Your task to perform on an android device: Clear all items from cart on newegg.com. Add "usb-a" to the cart on newegg.com Image 0: 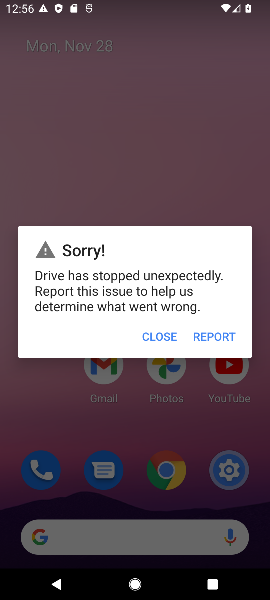
Step 0: click (165, 343)
Your task to perform on an android device: Clear all items from cart on newegg.com. Add "usb-a" to the cart on newegg.com Image 1: 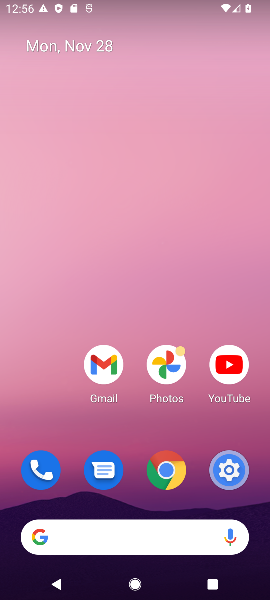
Step 1: click (127, 529)
Your task to perform on an android device: Clear all items from cart on newegg.com. Add "usb-a" to the cart on newegg.com Image 2: 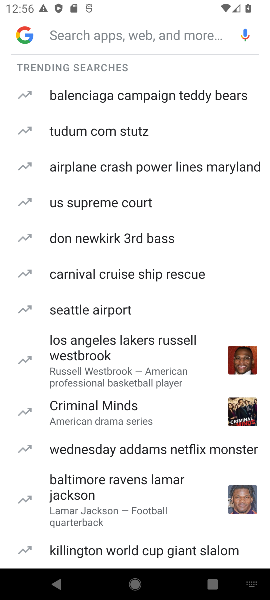
Step 2: type "newegg"
Your task to perform on an android device: Clear all items from cart on newegg.com. Add "usb-a" to the cart on newegg.com Image 3: 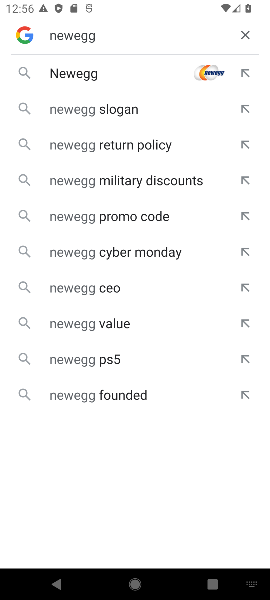
Step 3: click (150, 73)
Your task to perform on an android device: Clear all items from cart on newegg.com. Add "usb-a" to the cart on newegg.com Image 4: 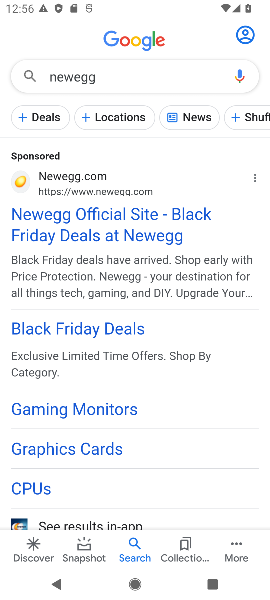
Step 4: press home button
Your task to perform on an android device: Clear all items from cart on newegg.com. Add "usb-a" to the cart on newegg.com Image 5: 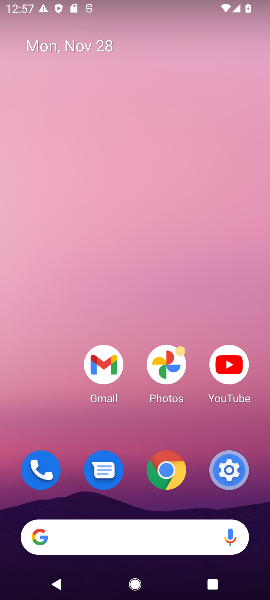
Step 5: click (157, 534)
Your task to perform on an android device: Clear all items from cart on newegg.com. Add "usb-a" to the cart on newegg.com Image 6: 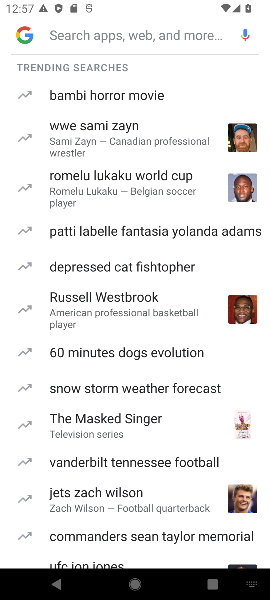
Step 6: type "neweegg"
Your task to perform on an android device: Clear all items from cart on newegg.com. Add "usb-a" to the cart on newegg.com Image 7: 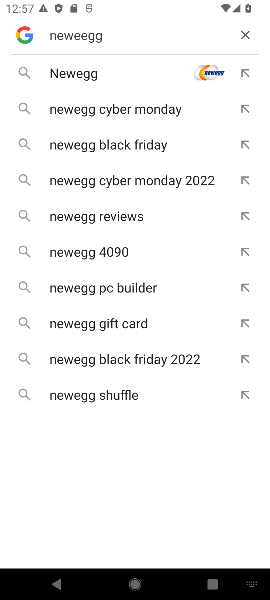
Step 7: click (71, 80)
Your task to perform on an android device: Clear all items from cart on newegg.com. Add "usb-a" to the cart on newegg.com Image 8: 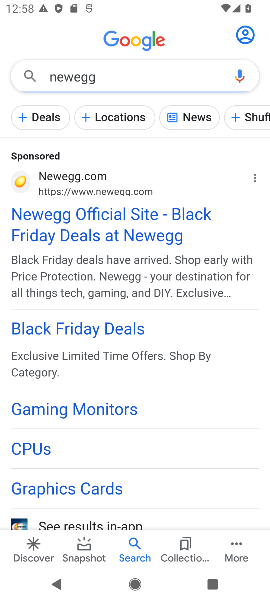
Step 8: click (145, 202)
Your task to perform on an android device: Clear all items from cart on newegg.com. Add "usb-a" to the cart on newegg.com Image 9: 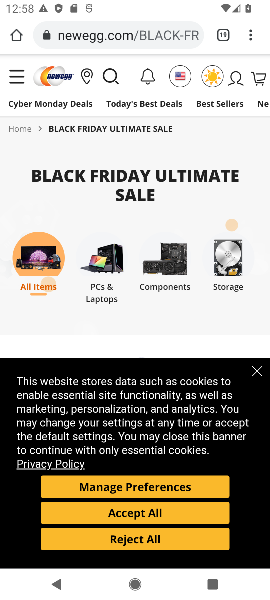
Step 9: click (262, 375)
Your task to perform on an android device: Clear all items from cart on newegg.com. Add "usb-a" to the cart on newegg.com Image 10: 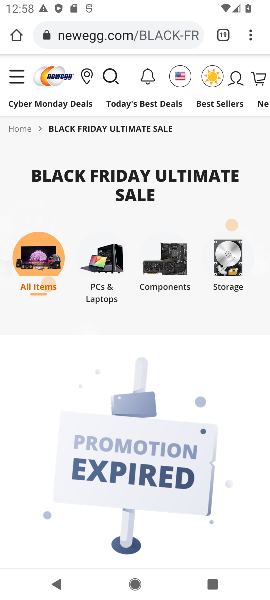
Step 10: task complete